Your task to perform on an android device: check data usage Image 0: 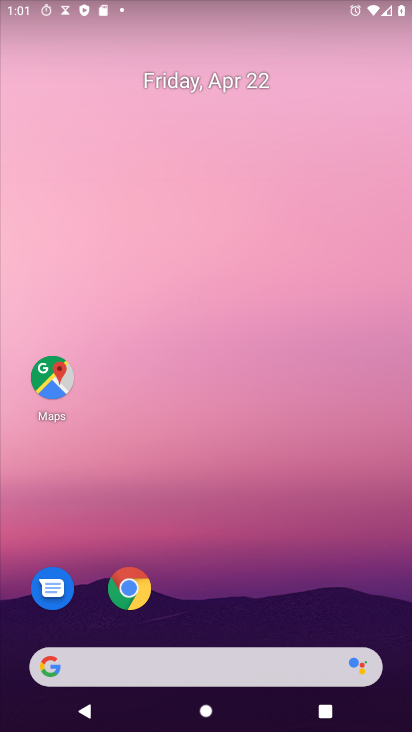
Step 0: drag from (283, 691) to (351, 168)
Your task to perform on an android device: check data usage Image 1: 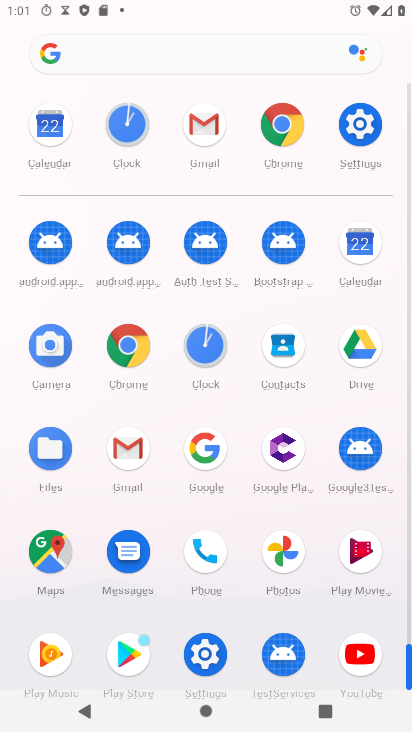
Step 1: click (354, 131)
Your task to perform on an android device: check data usage Image 2: 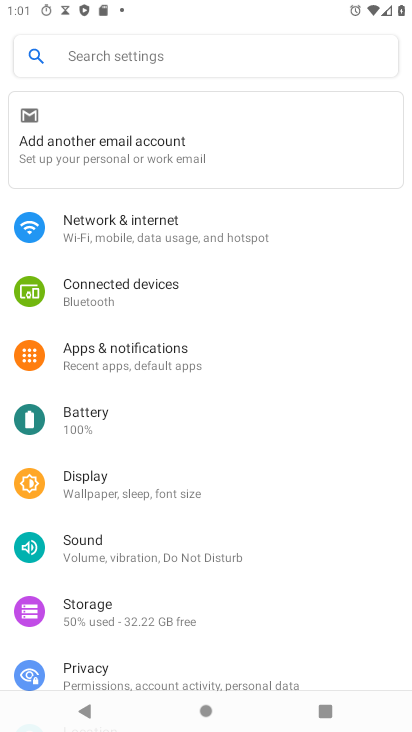
Step 2: click (177, 69)
Your task to perform on an android device: check data usage Image 3: 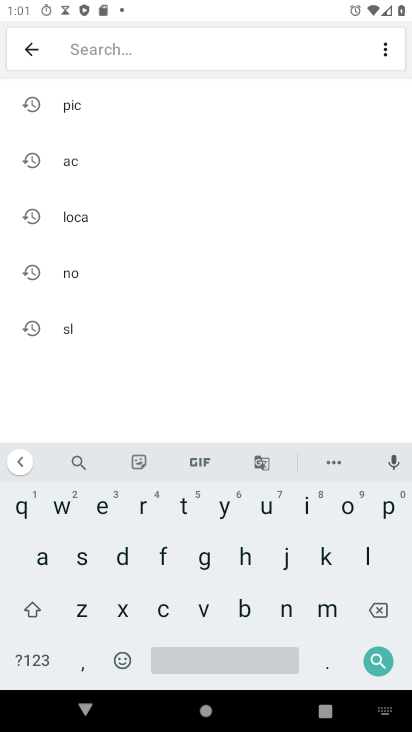
Step 3: click (128, 557)
Your task to perform on an android device: check data usage Image 4: 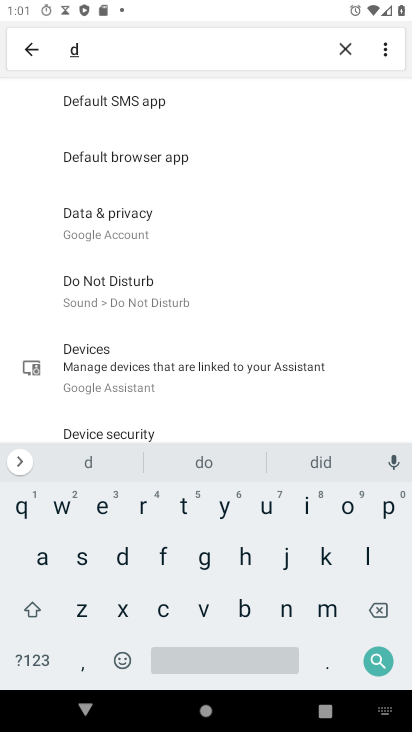
Step 4: click (46, 554)
Your task to perform on an android device: check data usage Image 5: 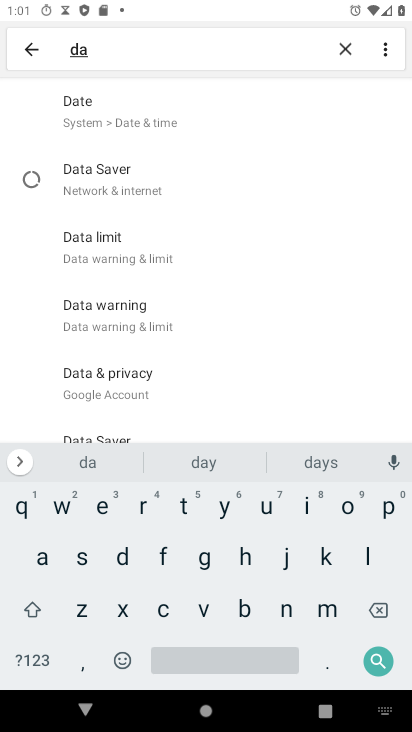
Step 5: click (178, 513)
Your task to perform on an android device: check data usage Image 6: 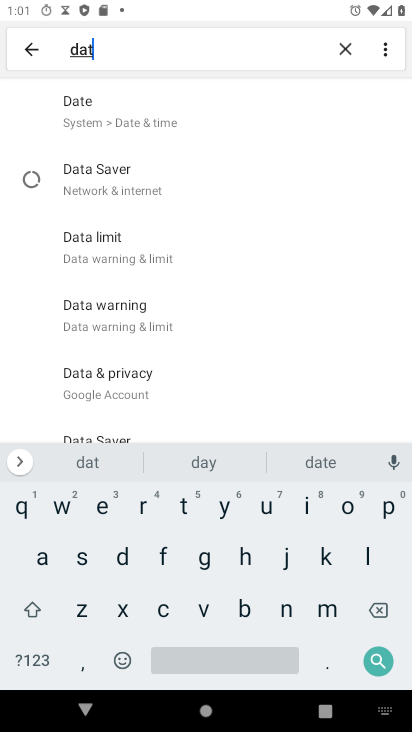
Step 6: click (43, 555)
Your task to perform on an android device: check data usage Image 7: 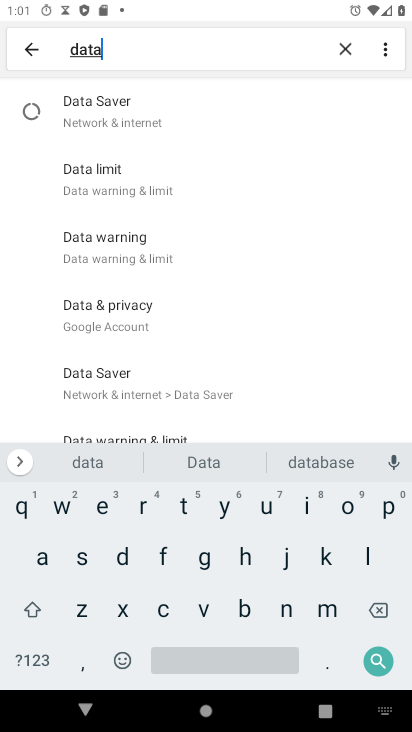
Step 7: click (196, 662)
Your task to perform on an android device: check data usage Image 8: 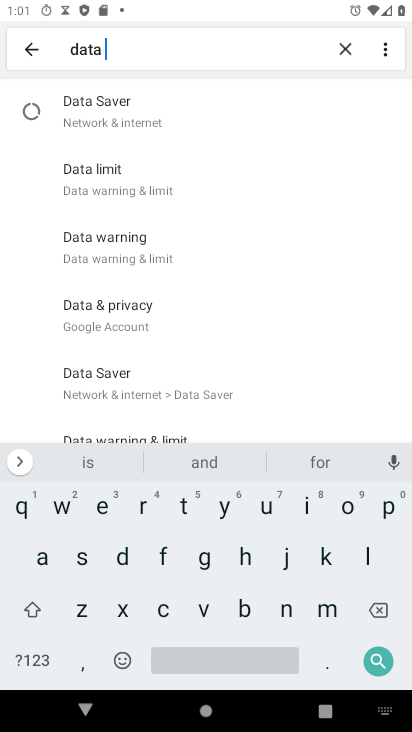
Step 8: click (264, 515)
Your task to perform on an android device: check data usage Image 9: 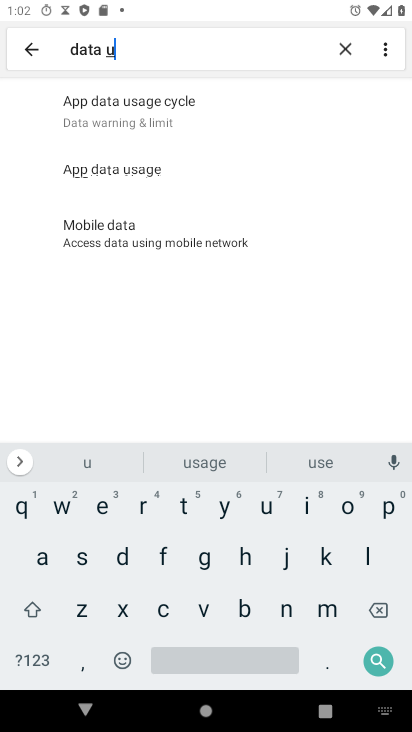
Step 9: click (170, 190)
Your task to perform on an android device: check data usage Image 10: 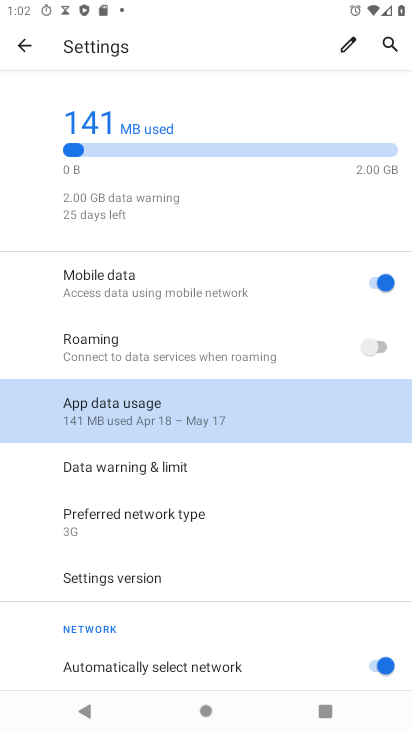
Step 10: click (115, 408)
Your task to perform on an android device: check data usage Image 11: 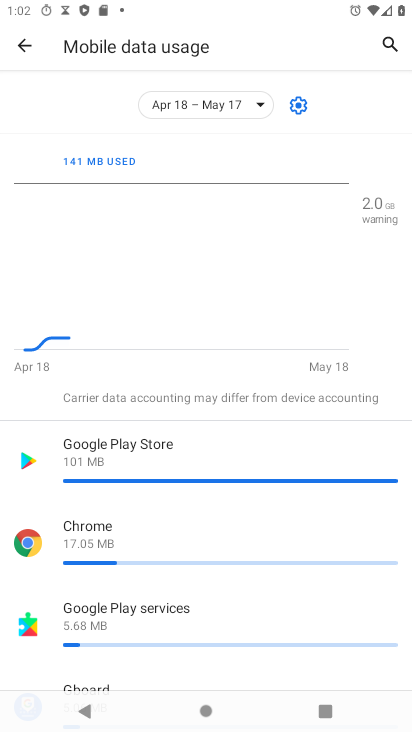
Step 11: task complete